Your task to perform on an android device: add a contact in the contacts app Image 0: 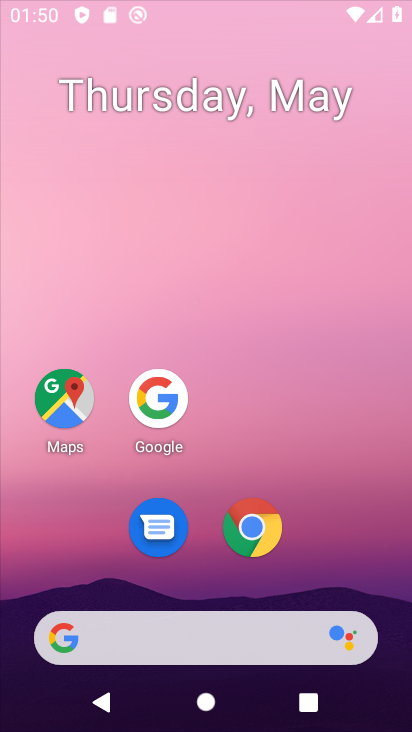
Step 0: drag from (193, 214) to (177, 76)
Your task to perform on an android device: add a contact in the contacts app Image 1: 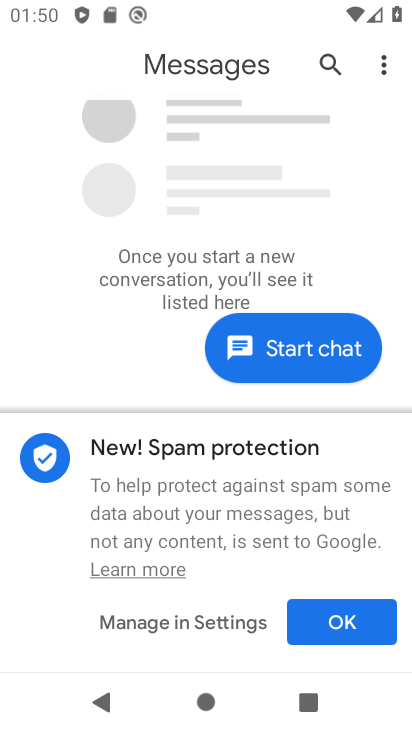
Step 1: press home button
Your task to perform on an android device: add a contact in the contacts app Image 2: 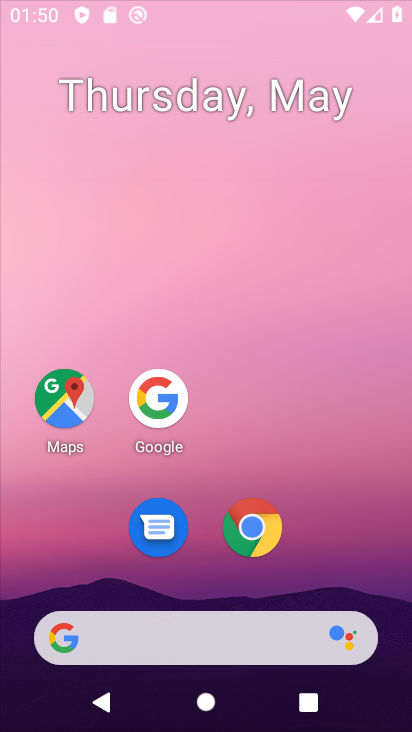
Step 2: drag from (207, 600) to (223, 195)
Your task to perform on an android device: add a contact in the contacts app Image 3: 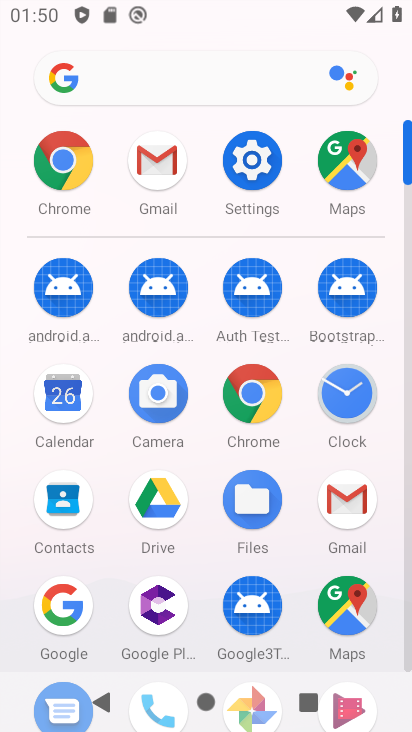
Step 3: click (59, 512)
Your task to perform on an android device: add a contact in the contacts app Image 4: 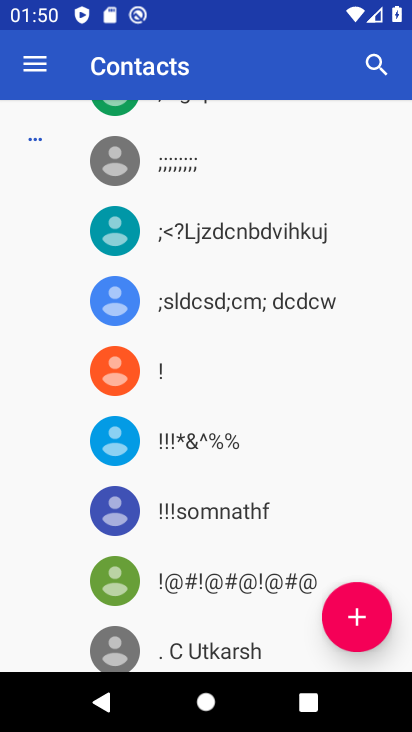
Step 4: click (376, 611)
Your task to perform on an android device: add a contact in the contacts app Image 5: 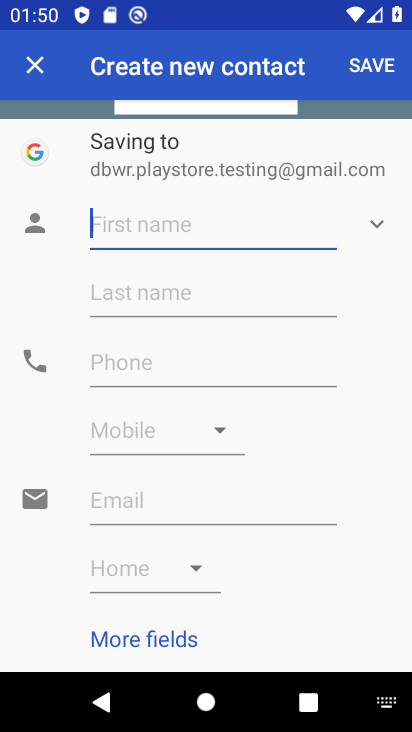
Step 5: click (158, 221)
Your task to perform on an android device: add a contact in the contacts app Image 6: 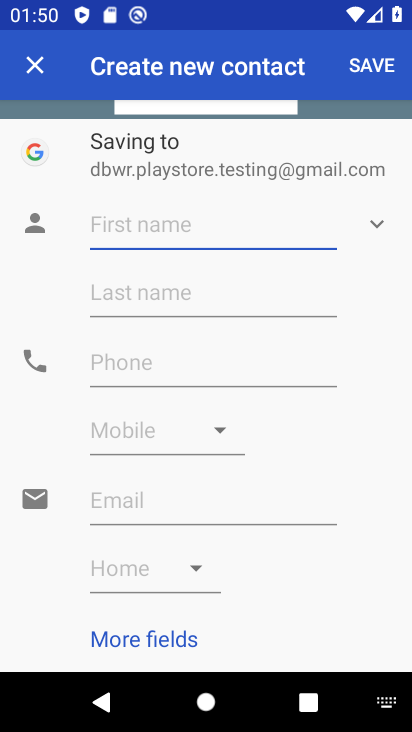
Step 6: type "nbv"
Your task to perform on an android device: add a contact in the contacts app Image 7: 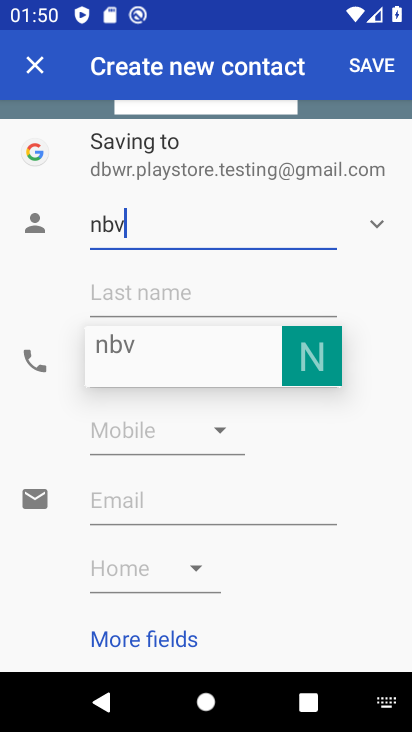
Step 7: click (344, 43)
Your task to perform on an android device: add a contact in the contacts app Image 8: 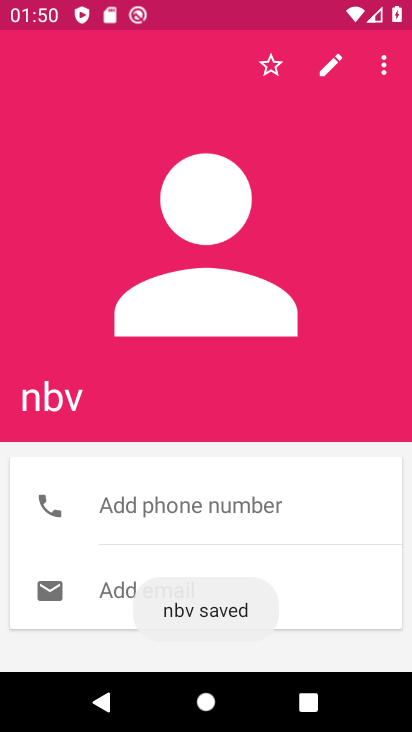
Step 8: task complete